Your task to perform on an android device: Turn on the flashlight Image 0: 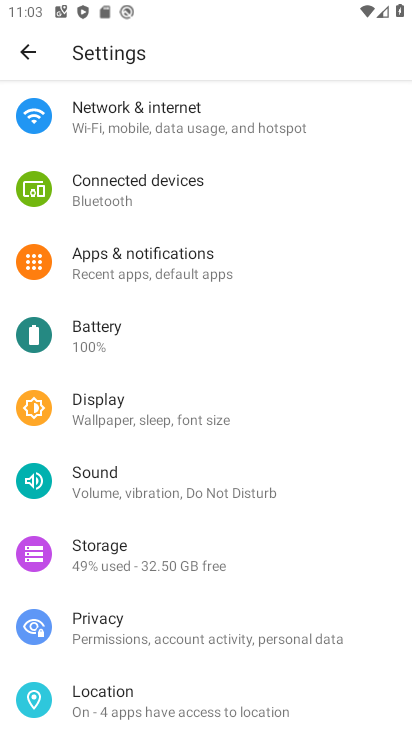
Step 0: drag from (130, 666) to (173, 222)
Your task to perform on an android device: Turn on the flashlight Image 1: 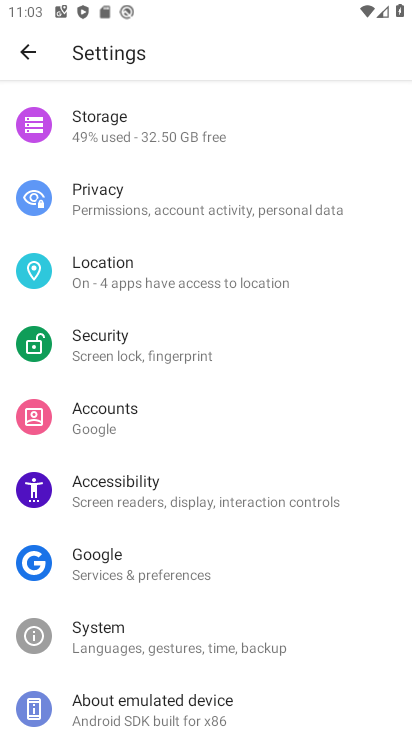
Step 1: task complete